Your task to perform on an android device: open device folders in google photos Image 0: 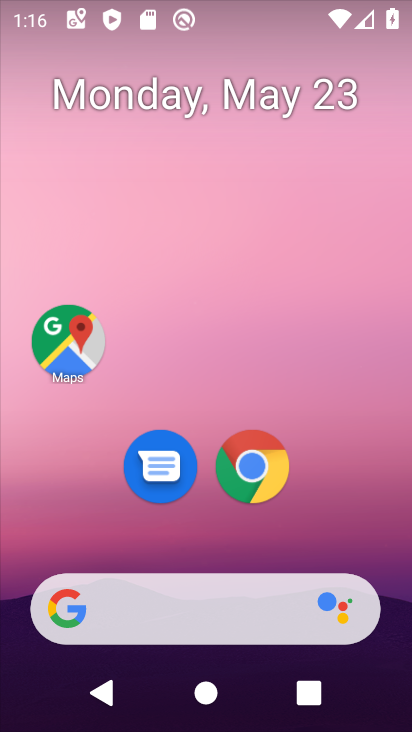
Step 0: drag from (350, 542) to (308, 10)
Your task to perform on an android device: open device folders in google photos Image 1: 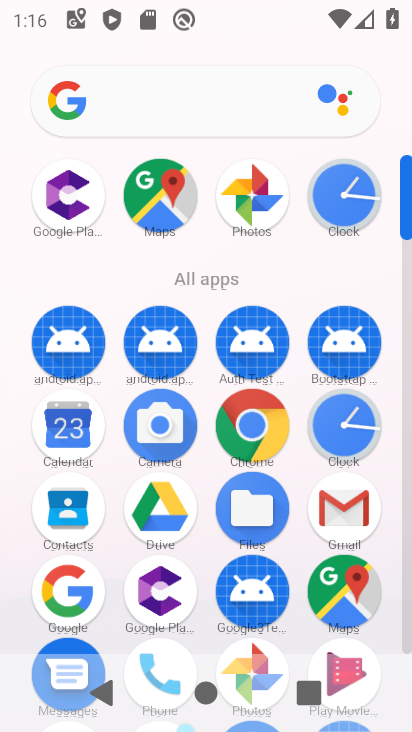
Step 1: click (252, 194)
Your task to perform on an android device: open device folders in google photos Image 2: 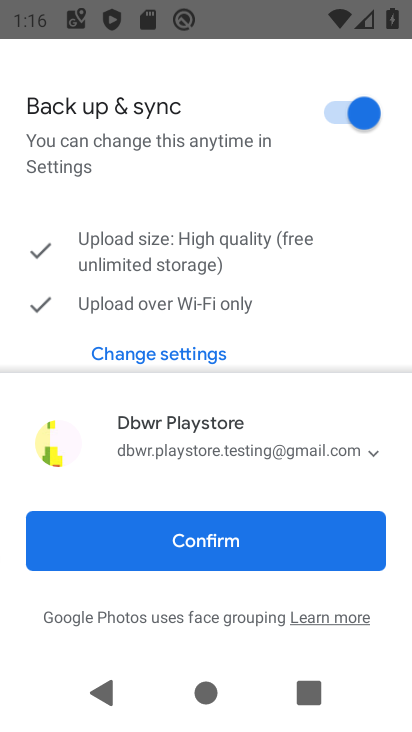
Step 2: click (222, 542)
Your task to perform on an android device: open device folders in google photos Image 3: 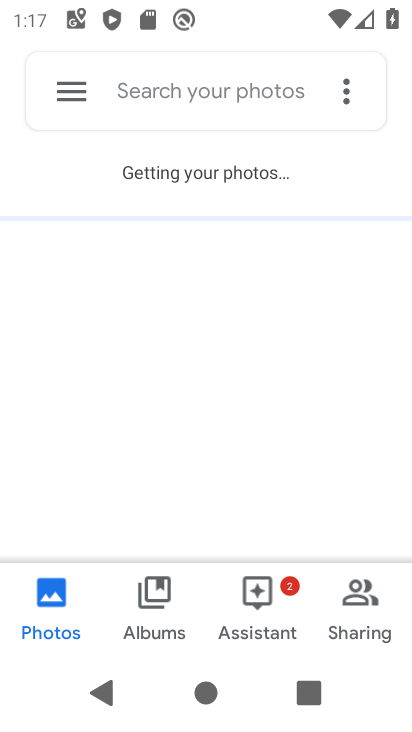
Step 3: click (65, 90)
Your task to perform on an android device: open device folders in google photos Image 4: 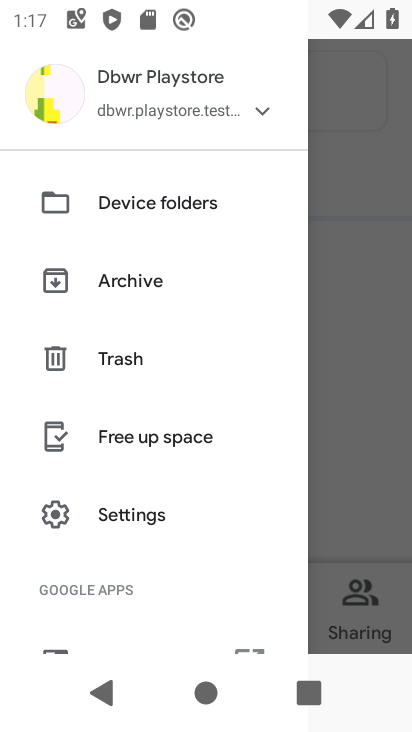
Step 4: click (140, 205)
Your task to perform on an android device: open device folders in google photos Image 5: 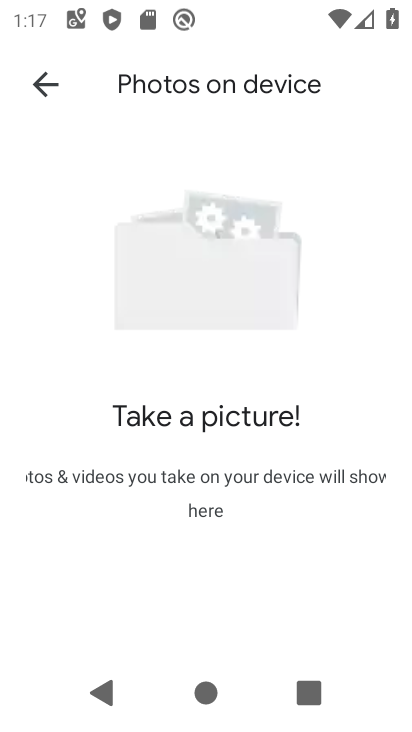
Step 5: task complete